Your task to perform on an android device: Add "razer huntsman" to the cart on walmart, then select checkout. Image 0: 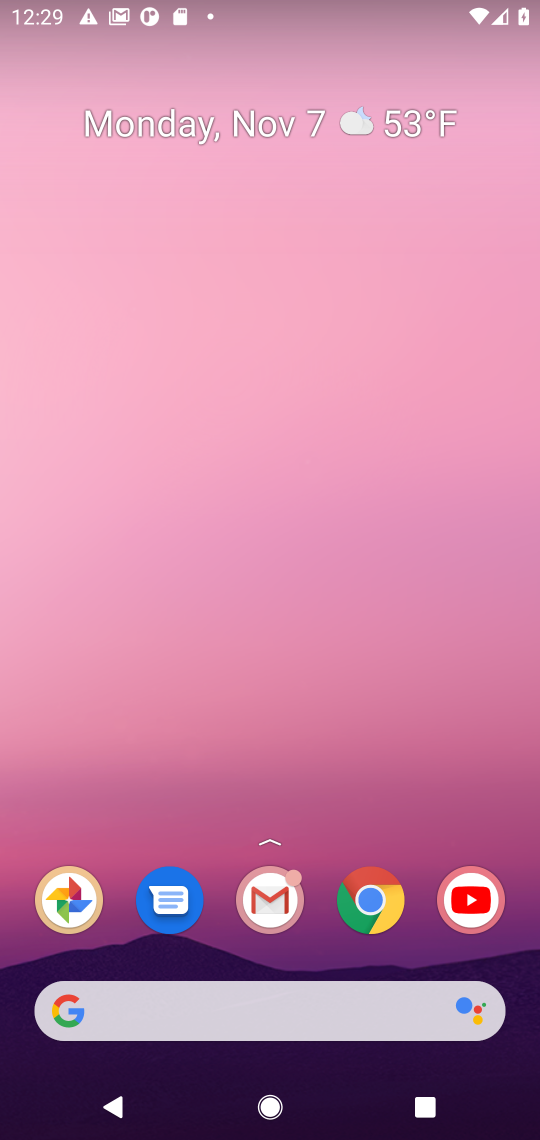
Step 0: click (299, 982)
Your task to perform on an android device: Add "razer huntsman" to the cart on walmart, then select checkout. Image 1: 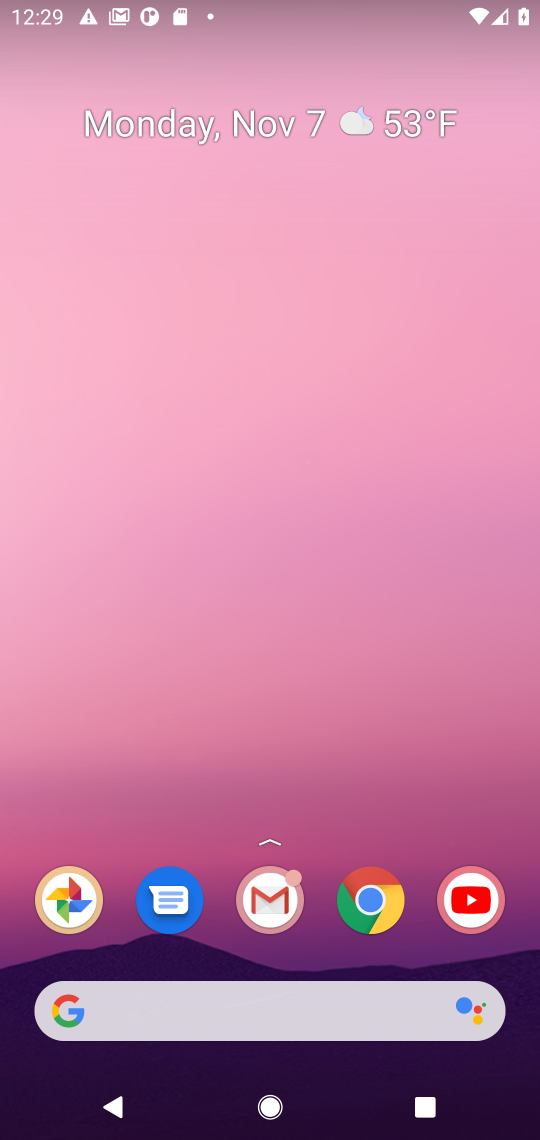
Step 1: click (296, 1008)
Your task to perform on an android device: Add "razer huntsman" to the cart on walmart, then select checkout. Image 2: 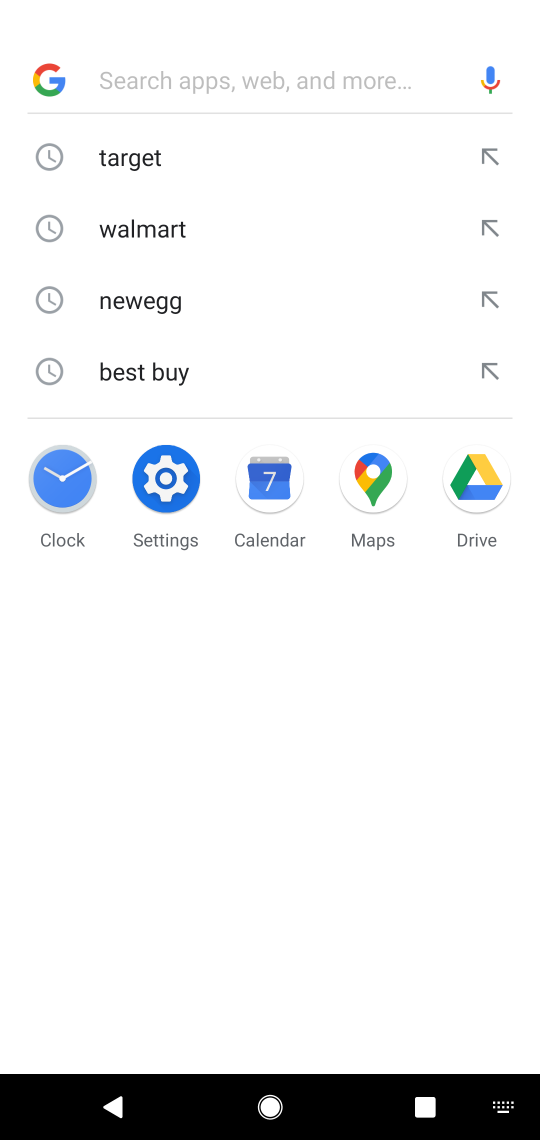
Step 2: click (268, 230)
Your task to perform on an android device: Add "razer huntsman" to the cart on walmart, then select checkout. Image 3: 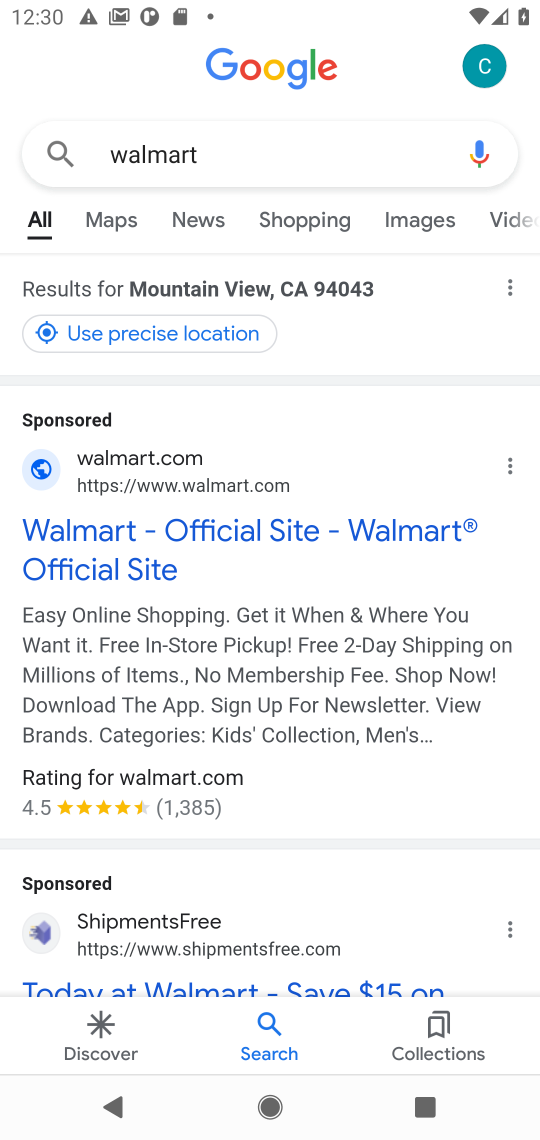
Step 3: click (256, 563)
Your task to perform on an android device: Add "razer huntsman" to the cart on walmart, then select checkout. Image 4: 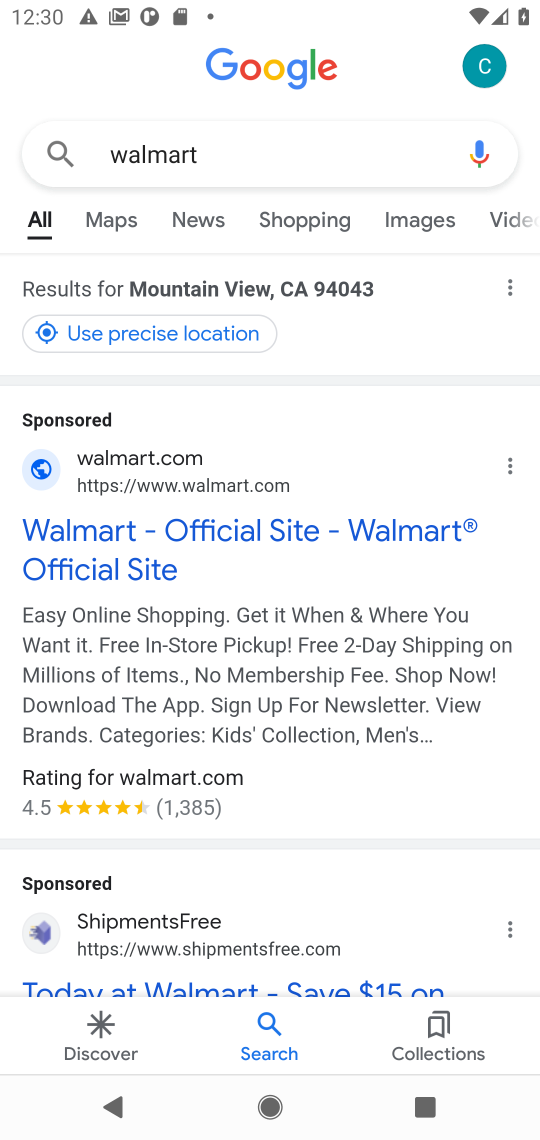
Step 4: task complete